Your task to perform on an android device: Open location settings Image 0: 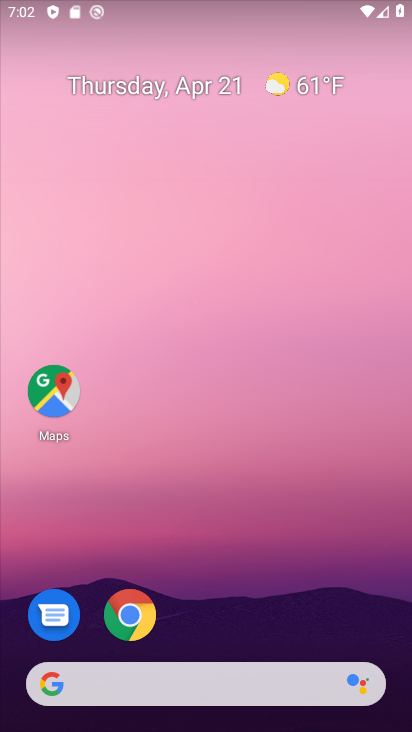
Step 0: drag from (197, 654) to (266, 121)
Your task to perform on an android device: Open location settings Image 1: 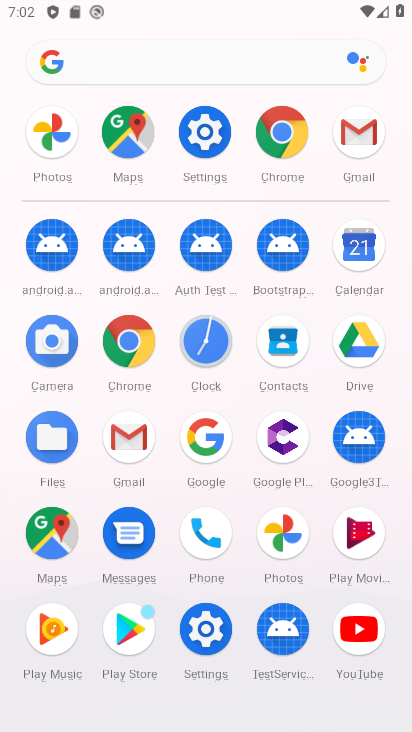
Step 1: click (210, 117)
Your task to perform on an android device: Open location settings Image 2: 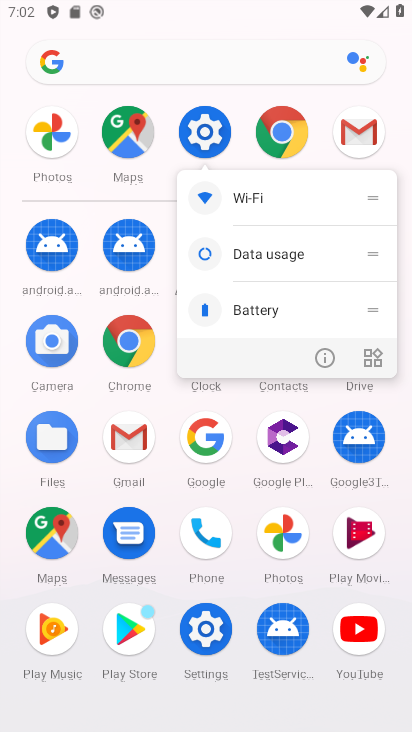
Step 2: click (328, 365)
Your task to perform on an android device: Open location settings Image 3: 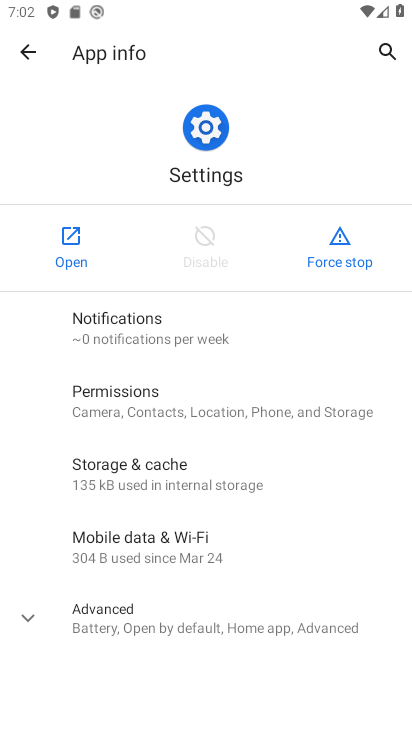
Step 3: click (60, 258)
Your task to perform on an android device: Open location settings Image 4: 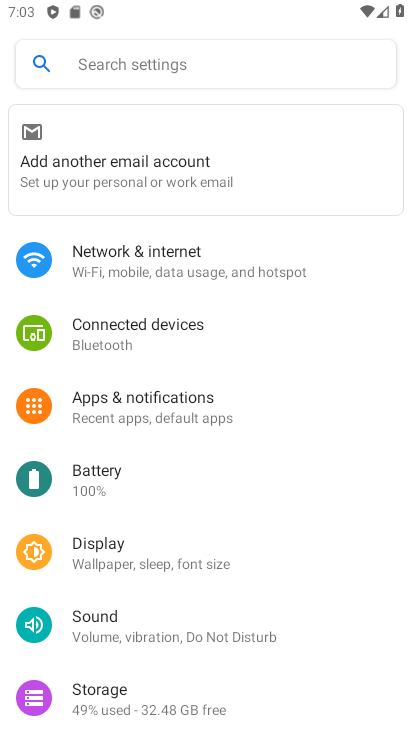
Step 4: drag from (193, 638) to (298, 230)
Your task to perform on an android device: Open location settings Image 5: 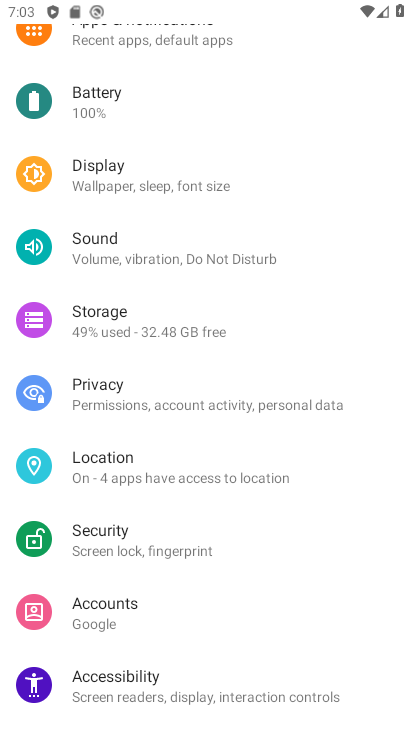
Step 5: click (182, 469)
Your task to perform on an android device: Open location settings Image 6: 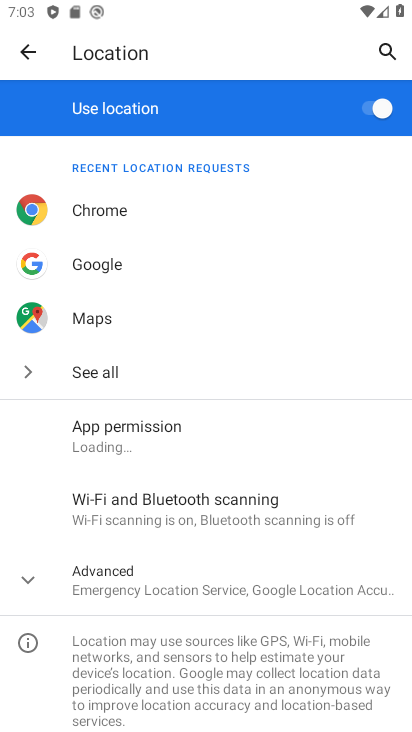
Step 6: click (221, 577)
Your task to perform on an android device: Open location settings Image 7: 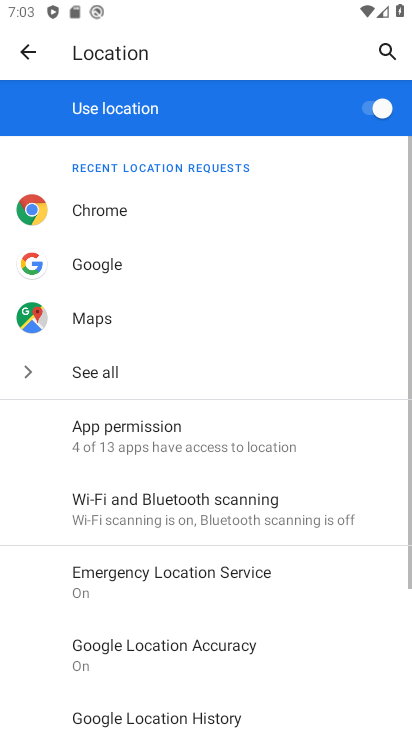
Step 7: task complete